Your task to perform on an android device: Open Yahoo.com Image 0: 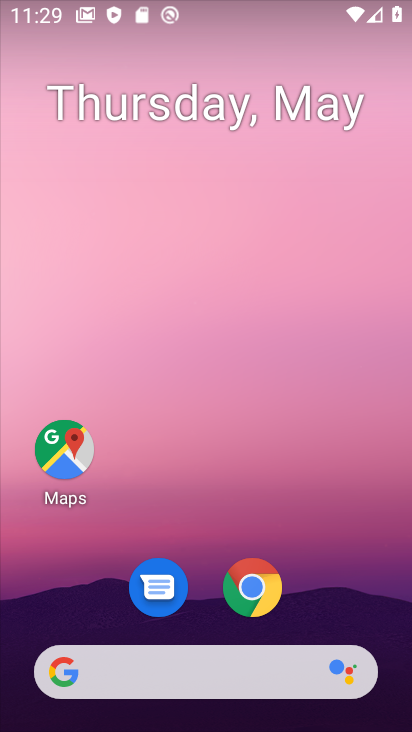
Step 0: drag from (199, 565) to (323, 35)
Your task to perform on an android device: Open Yahoo.com Image 1: 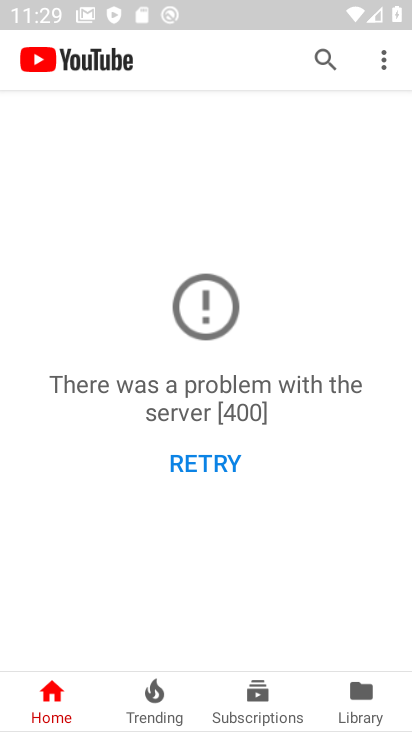
Step 1: press back button
Your task to perform on an android device: Open Yahoo.com Image 2: 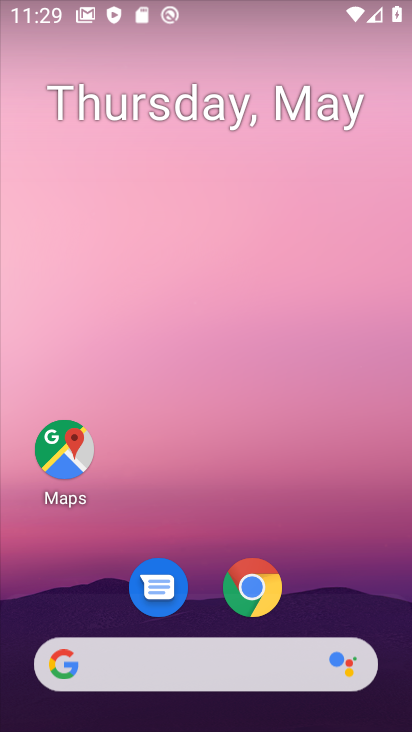
Step 2: click (231, 584)
Your task to perform on an android device: Open Yahoo.com Image 3: 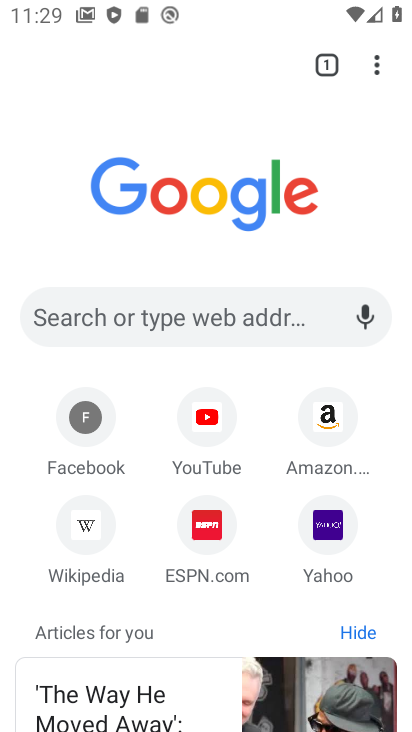
Step 3: click (309, 525)
Your task to perform on an android device: Open Yahoo.com Image 4: 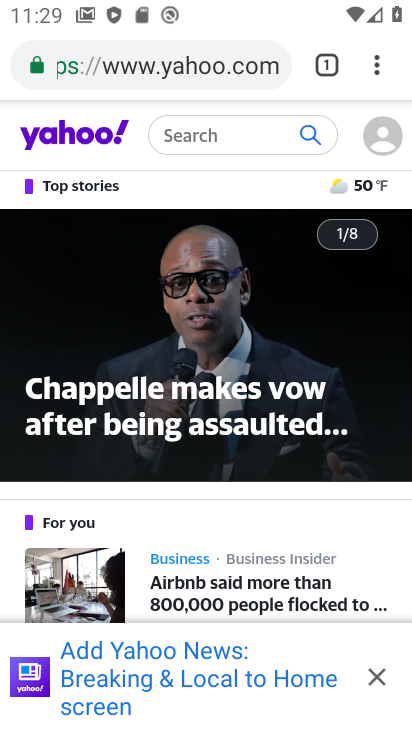
Step 4: task complete